Your task to perform on an android device: Go to Android settings Image 0: 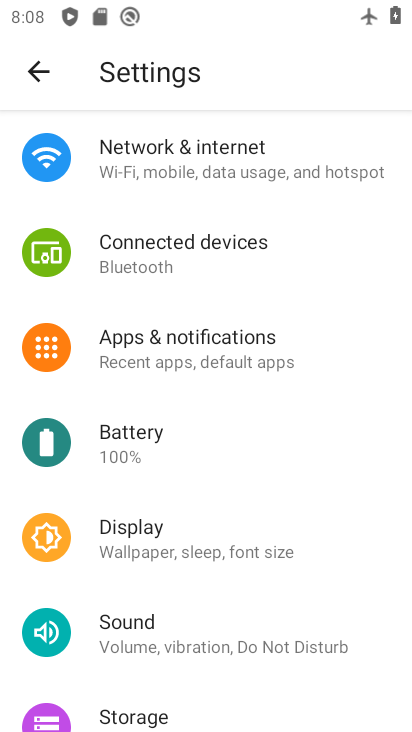
Step 0: drag from (240, 636) to (326, 66)
Your task to perform on an android device: Go to Android settings Image 1: 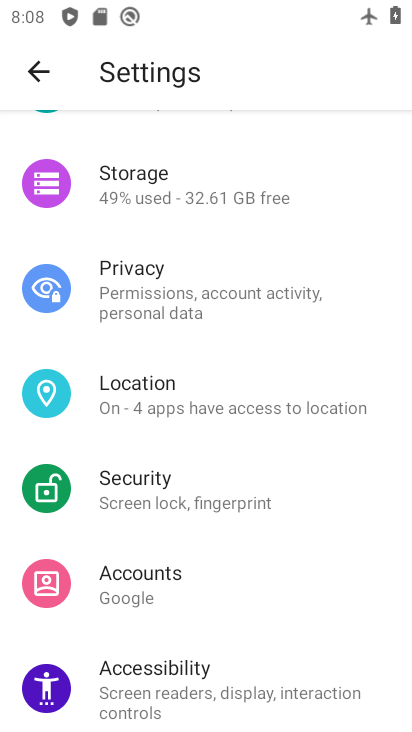
Step 1: task complete